Your task to perform on an android device: Go to wifi settings Image 0: 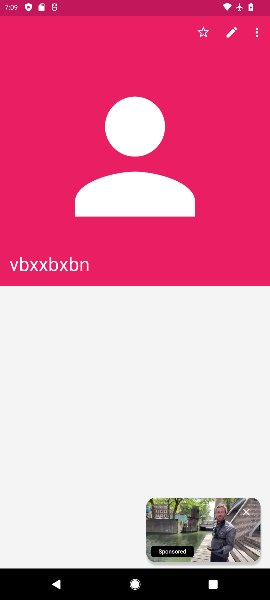
Step 0: press home button
Your task to perform on an android device: Go to wifi settings Image 1: 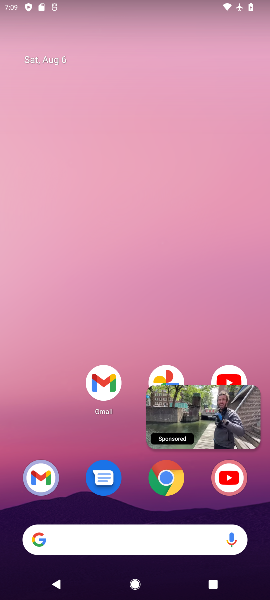
Step 1: drag from (211, 417) to (114, 598)
Your task to perform on an android device: Go to wifi settings Image 2: 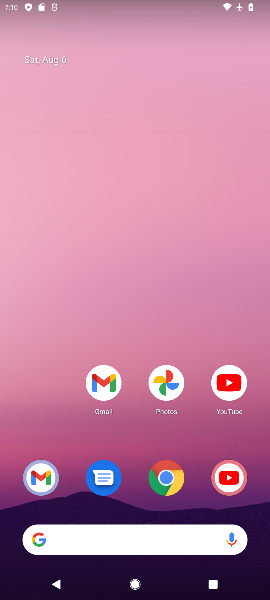
Step 2: drag from (127, 590) to (108, 563)
Your task to perform on an android device: Go to wifi settings Image 3: 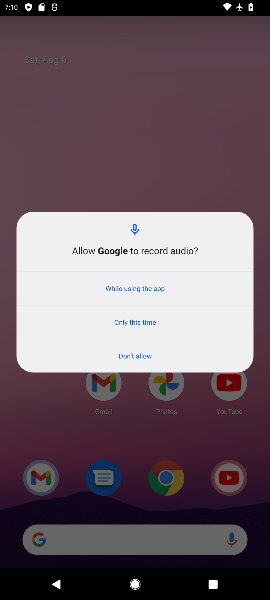
Step 3: press home button
Your task to perform on an android device: Go to wifi settings Image 4: 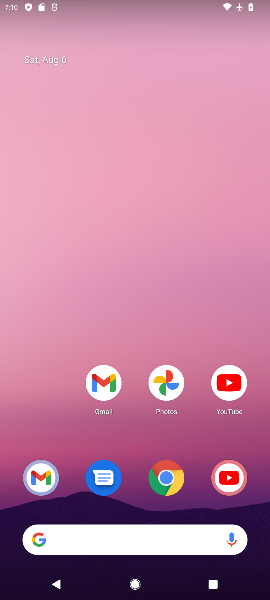
Step 4: drag from (62, 419) to (65, 24)
Your task to perform on an android device: Go to wifi settings Image 5: 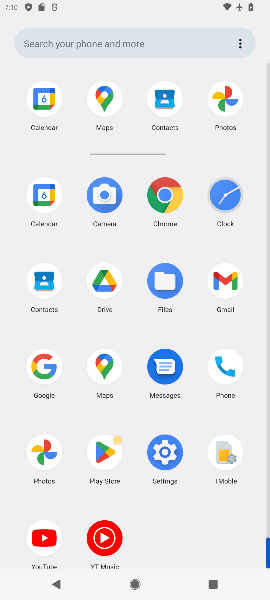
Step 5: click (169, 454)
Your task to perform on an android device: Go to wifi settings Image 6: 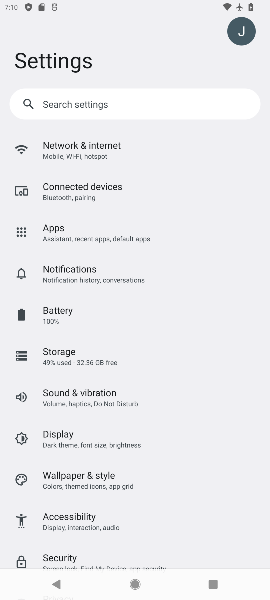
Step 6: click (91, 149)
Your task to perform on an android device: Go to wifi settings Image 7: 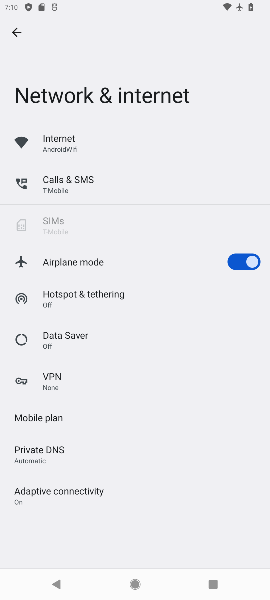
Step 7: click (52, 128)
Your task to perform on an android device: Go to wifi settings Image 8: 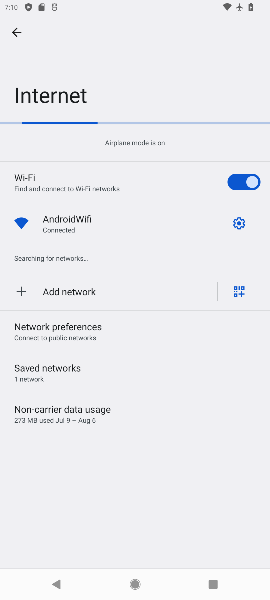
Step 8: click (57, 182)
Your task to perform on an android device: Go to wifi settings Image 9: 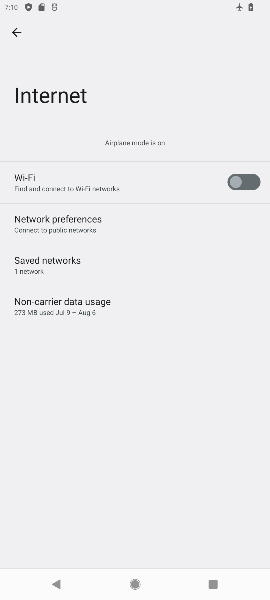
Step 9: task complete